Your task to perform on an android device: What's the weather today? Image 0: 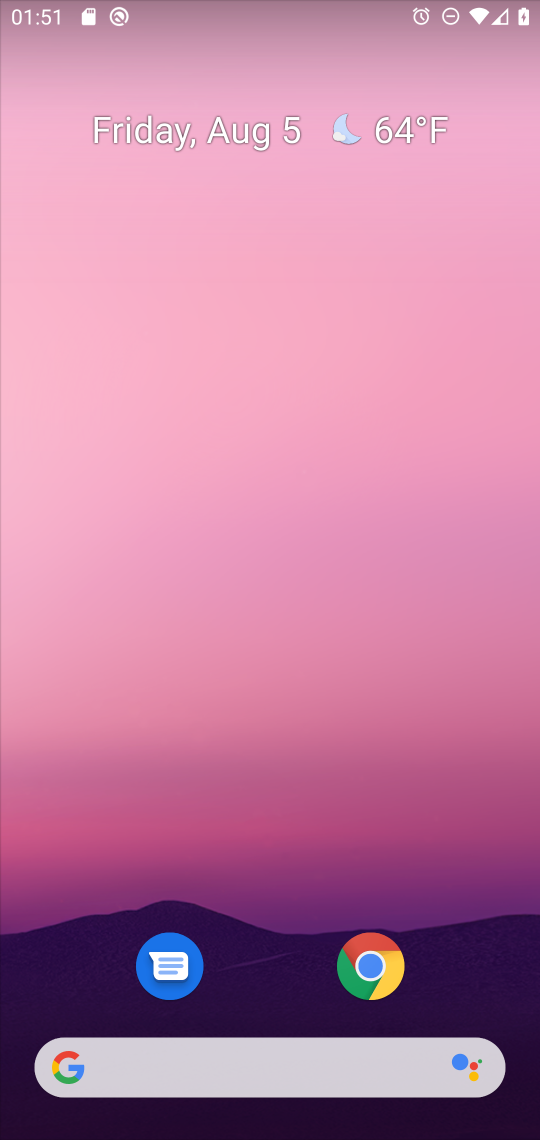
Step 0: click (388, 132)
Your task to perform on an android device: What's the weather today? Image 1: 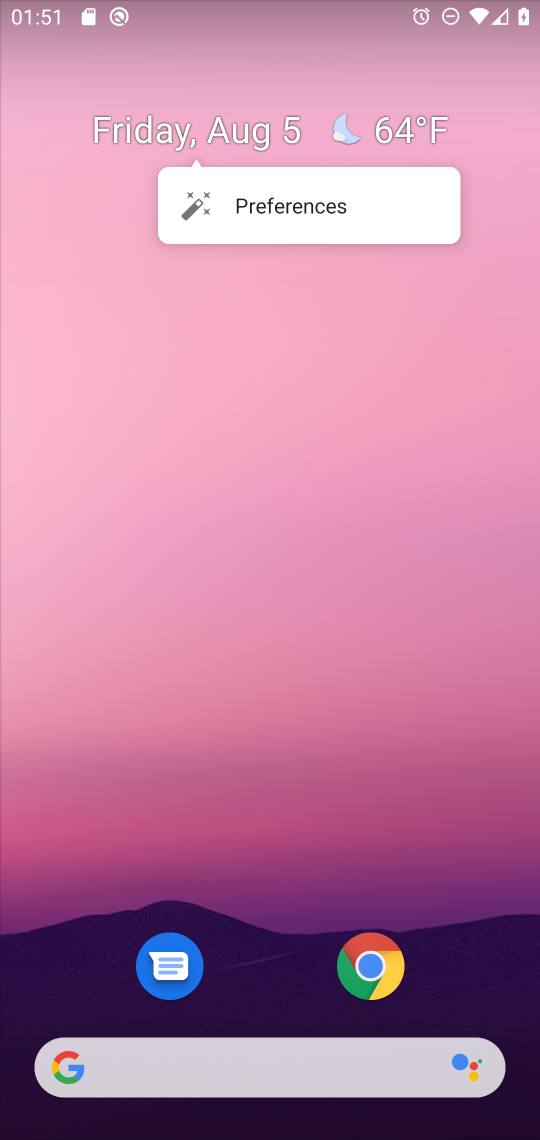
Step 1: click (388, 127)
Your task to perform on an android device: What's the weather today? Image 2: 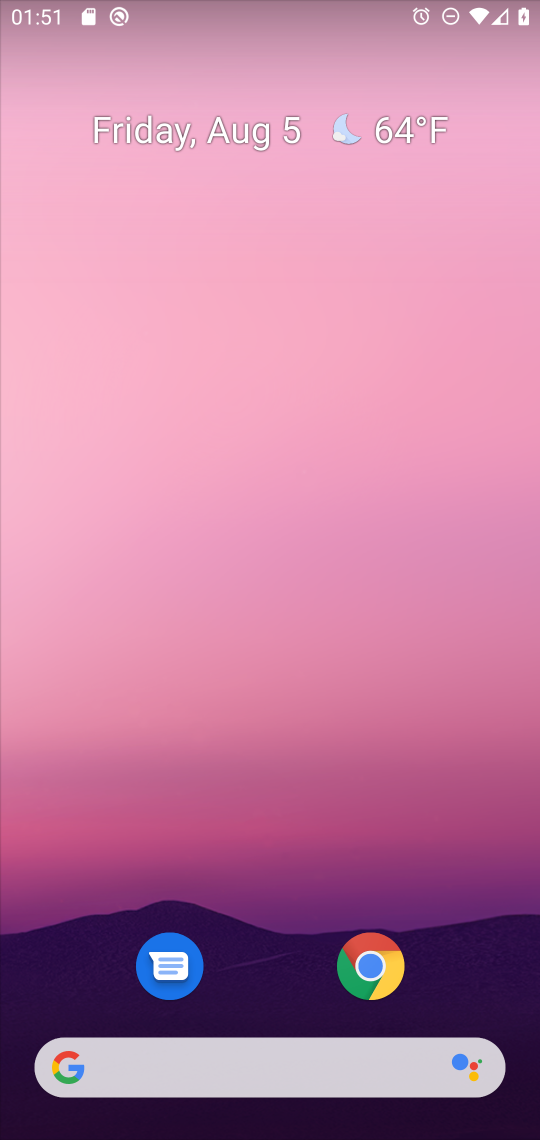
Step 2: click (388, 127)
Your task to perform on an android device: What's the weather today? Image 3: 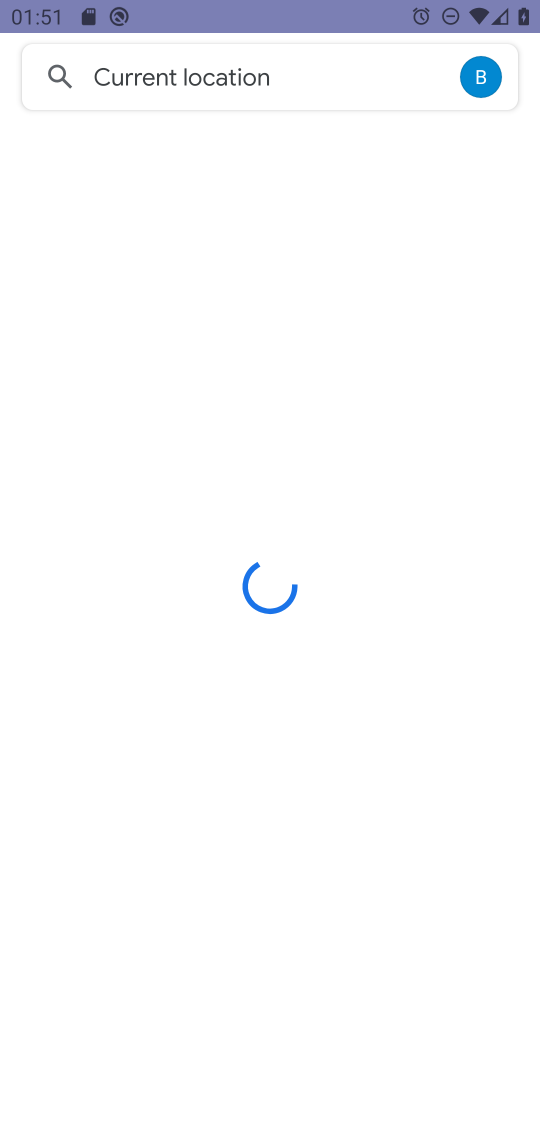
Step 3: click (388, 127)
Your task to perform on an android device: What's the weather today? Image 4: 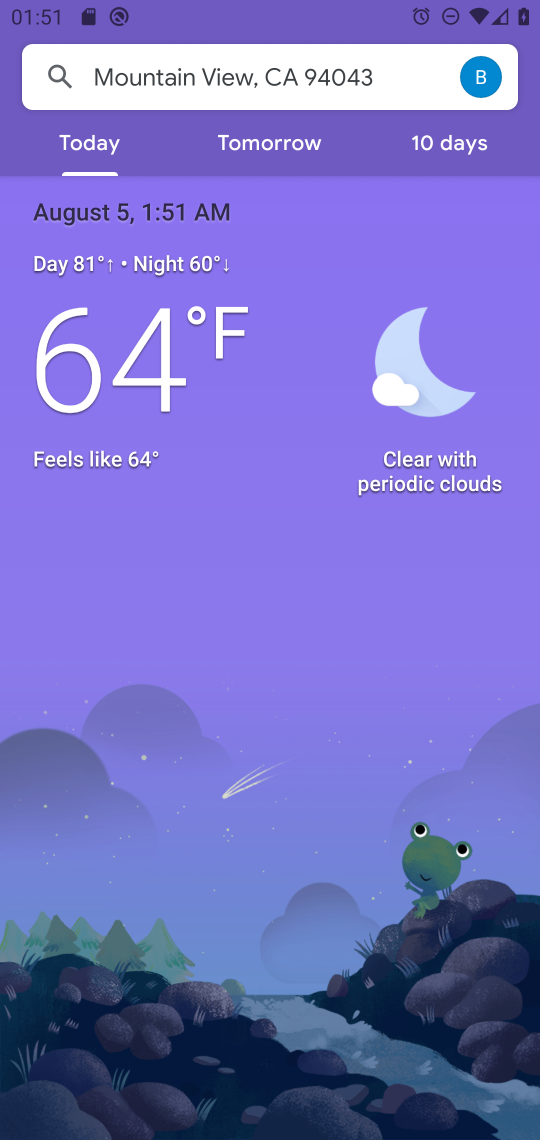
Step 4: task complete